Your task to perform on an android device: Open Google Image 0: 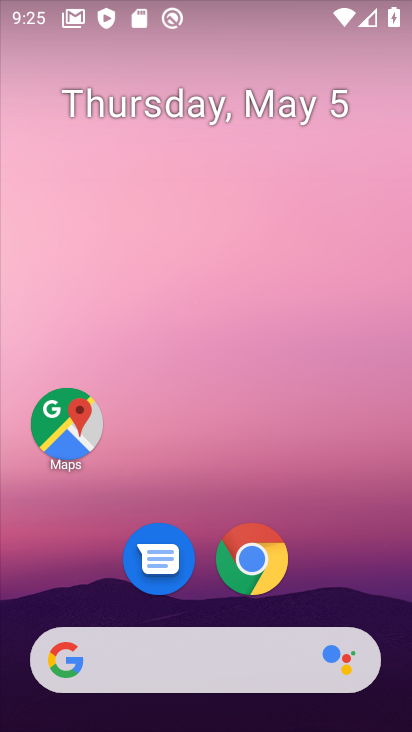
Step 0: click (71, 658)
Your task to perform on an android device: Open Google Image 1: 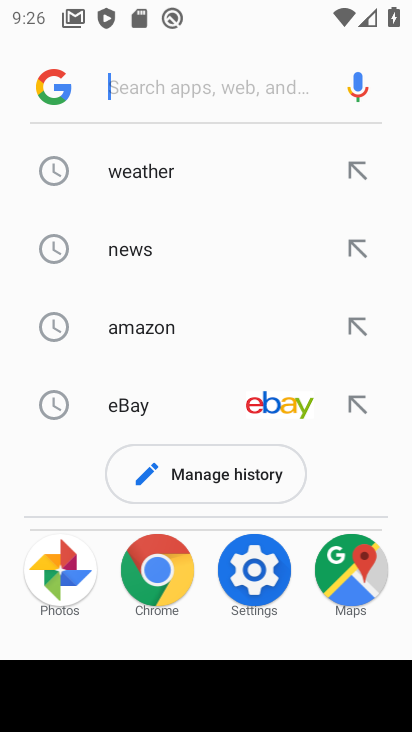
Step 1: task complete